Your task to perform on an android device: Search for vegetarian restaurants on Maps Image 0: 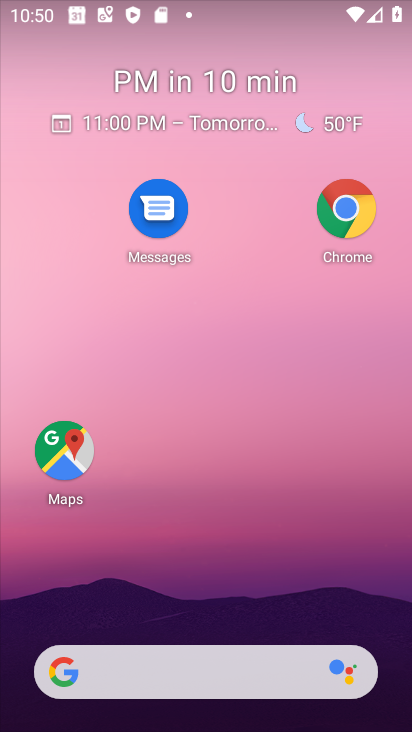
Step 0: click (54, 454)
Your task to perform on an android device: Search for vegetarian restaurants on Maps Image 1: 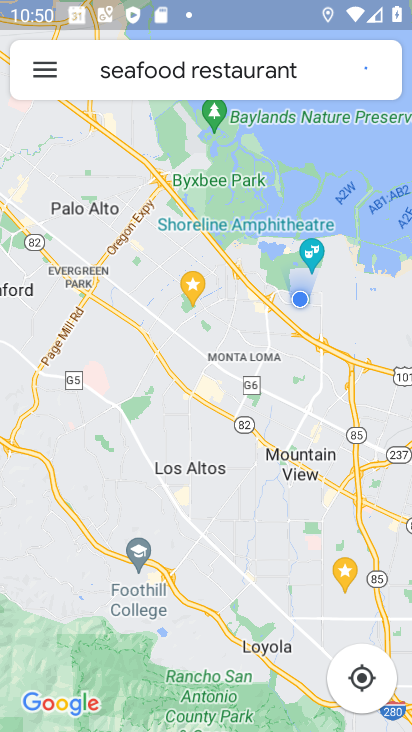
Step 1: click (285, 66)
Your task to perform on an android device: Search for vegetarian restaurants on Maps Image 2: 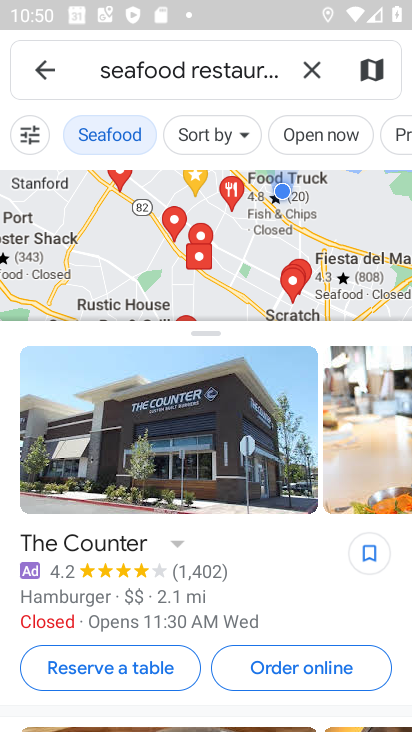
Step 2: click (309, 75)
Your task to perform on an android device: Search for vegetarian restaurants on Maps Image 3: 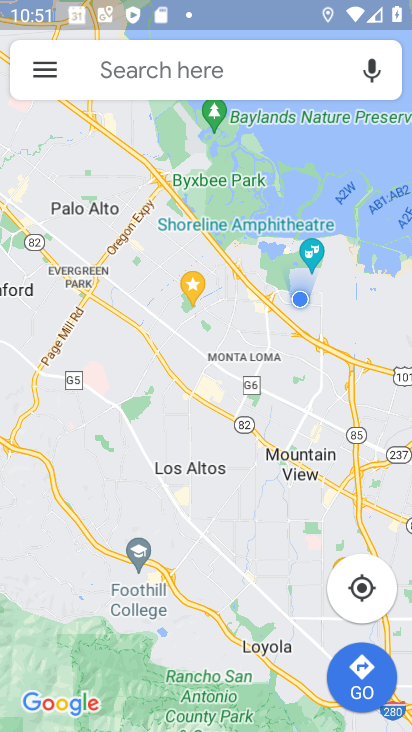
Step 3: click (171, 55)
Your task to perform on an android device: Search for vegetarian restaurants on Maps Image 4: 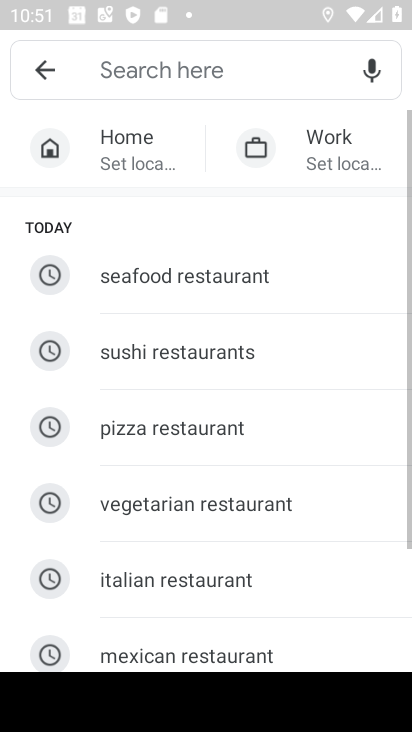
Step 4: click (141, 508)
Your task to perform on an android device: Search for vegetarian restaurants on Maps Image 5: 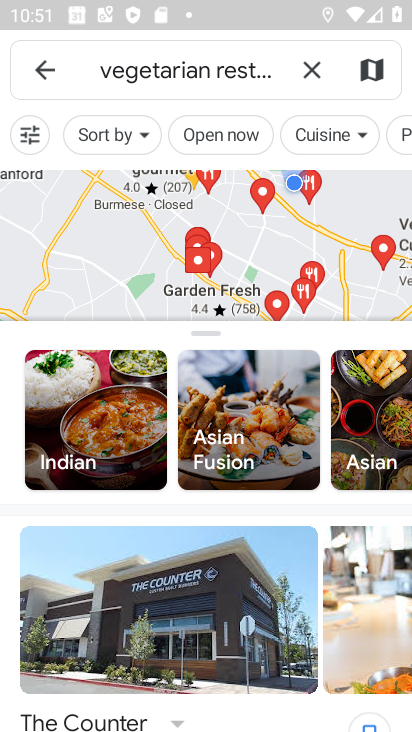
Step 5: task complete